Your task to perform on an android device: turn off notifications settings in the gmail app Image 0: 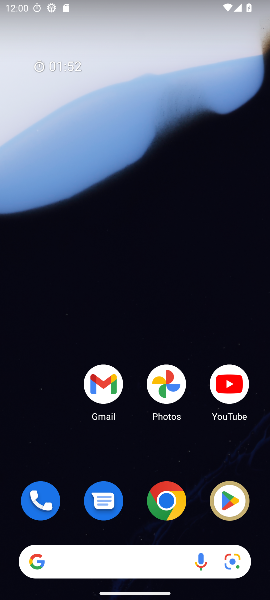
Step 0: drag from (201, 471) to (143, 133)
Your task to perform on an android device: turn off notifications settings in the gmail app Image 1: 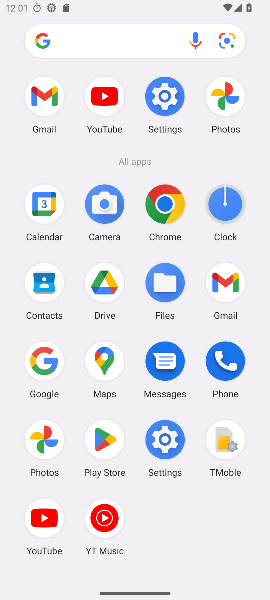
Step 1: click (234, 285)
Your task to perform on an android device: turn off notifications settings in the gmail app Image 2: 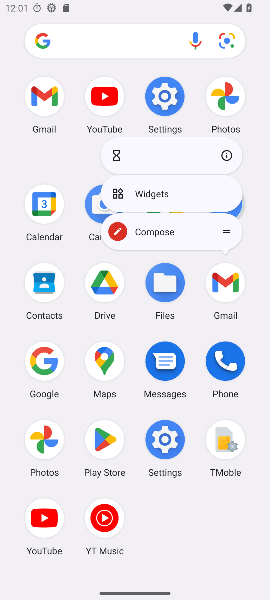
Step 2: click (228, 151)
Your task to perform on an android device: turn off notifications settings in the gmail app Image 3: 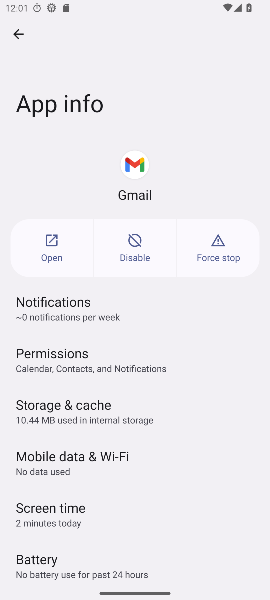
Step 3: click (134, 304)
Your task to perform on an android device: turn off notifications settings in the gmail app Image 4: 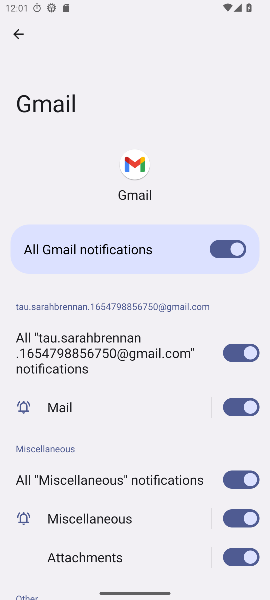
Step 4: click (227, 254)
Your task to perform on an android device: turn off notifications settings in the gmail app Image 5: 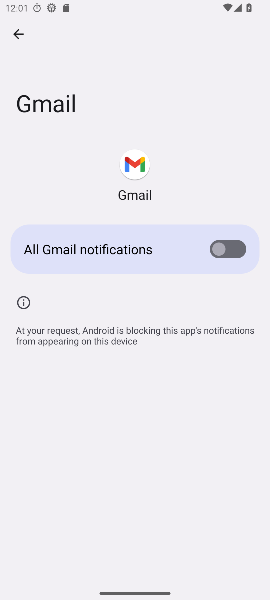
Step 5: task complete